Your task to perform on an android device: Search for "usb-a to usb-b" on target.com, select the first entry, add it to the cart, then select checkout. Image 0: 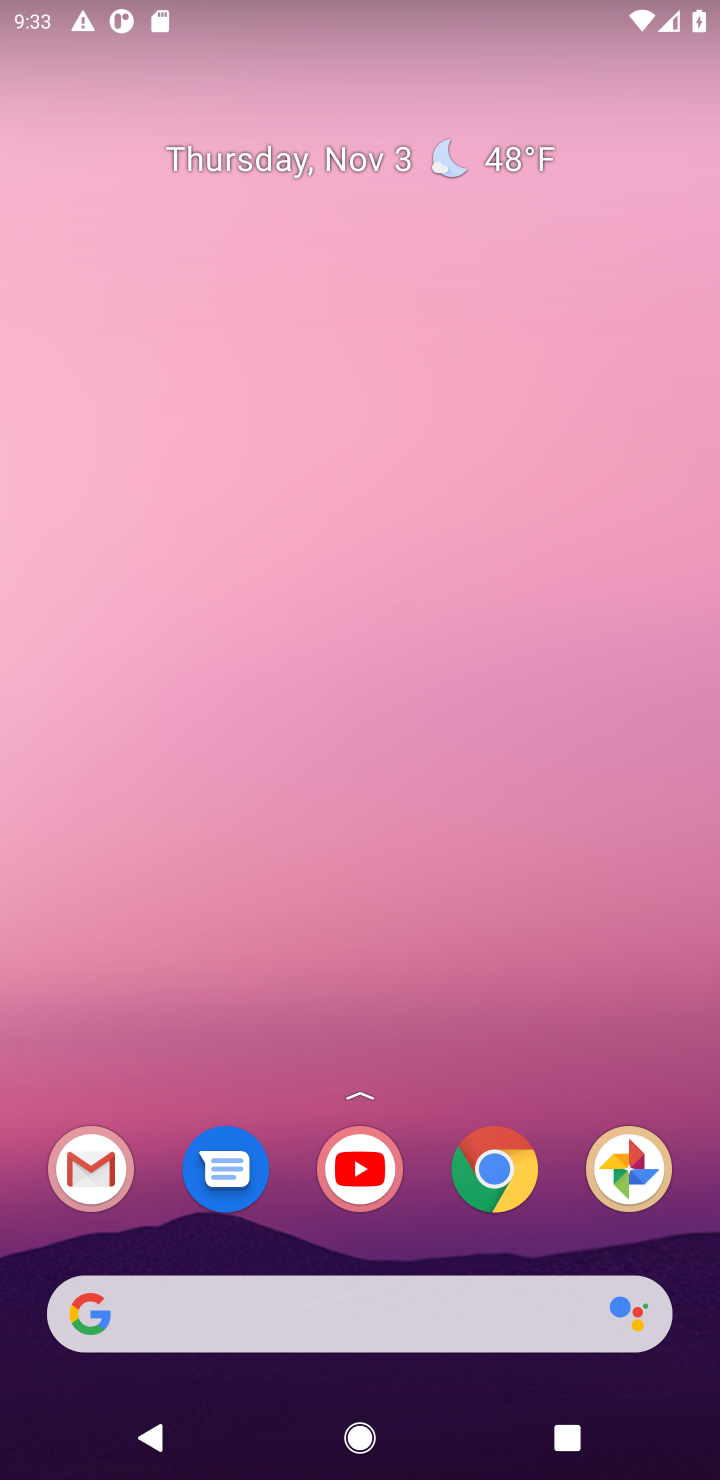
Step 0: drag from (461, 1257) to (517, 269)
Your task to perform on an android device: Search for "usb-a to usb-b" on target.com, select the first entry, add it to the cart, then select checkout. Image 1: 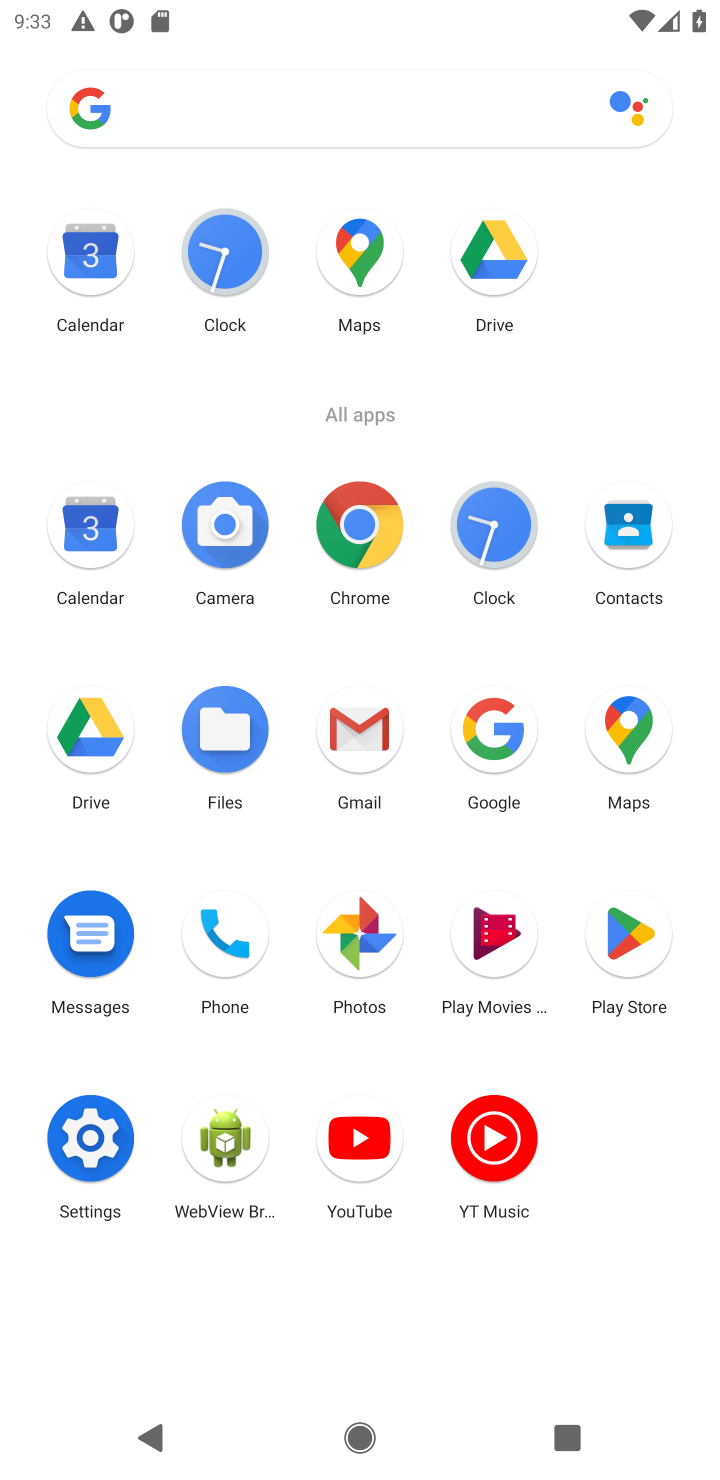
Step 1: click (359, 536)
Your task to perform on an android device: Search for "usb-a to usb-b" on target.com, select the first entry, add it to the cart, then select checkout. Image 2: 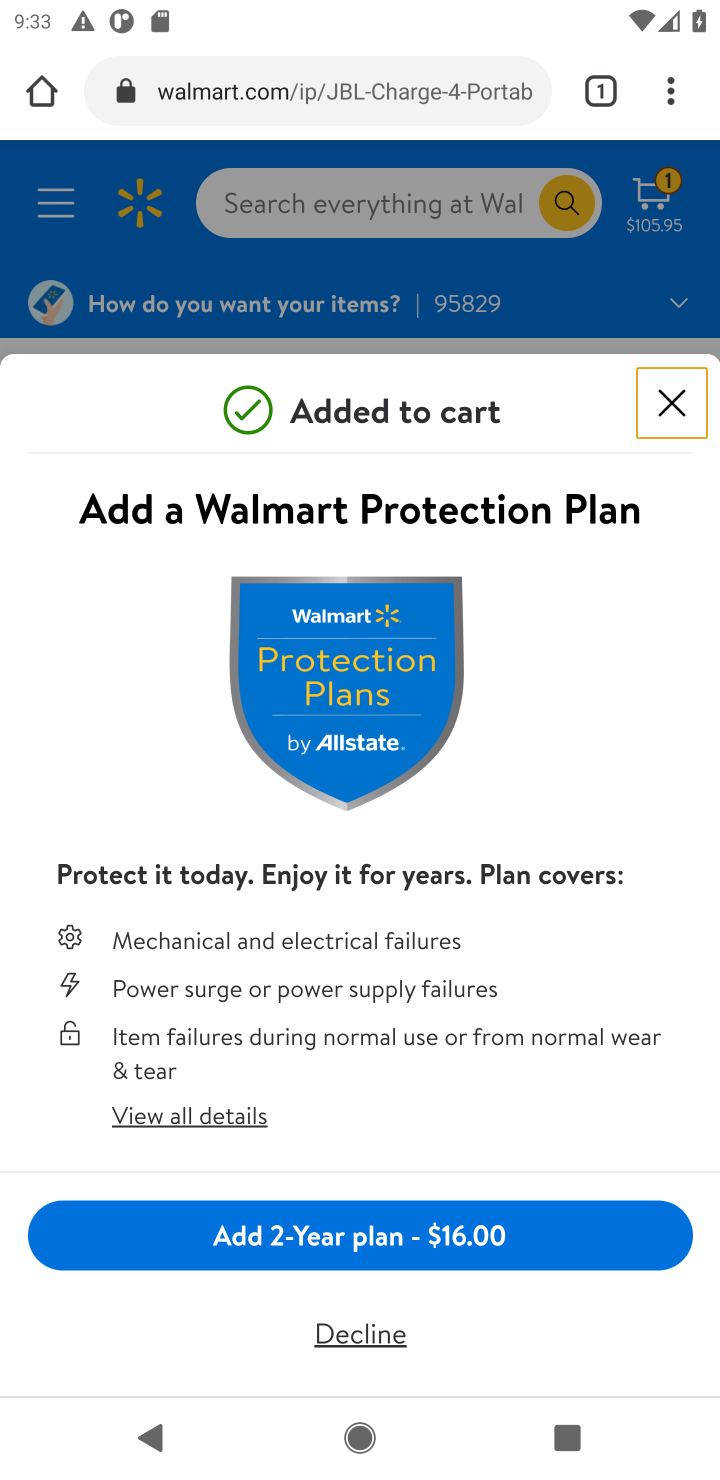
Step 2: click (400, 65)
Your task to perform on an android device: Search for "usb-a to usb-b" on target.com, select the first entry, add it to the cart, then select checkout. Image 3: 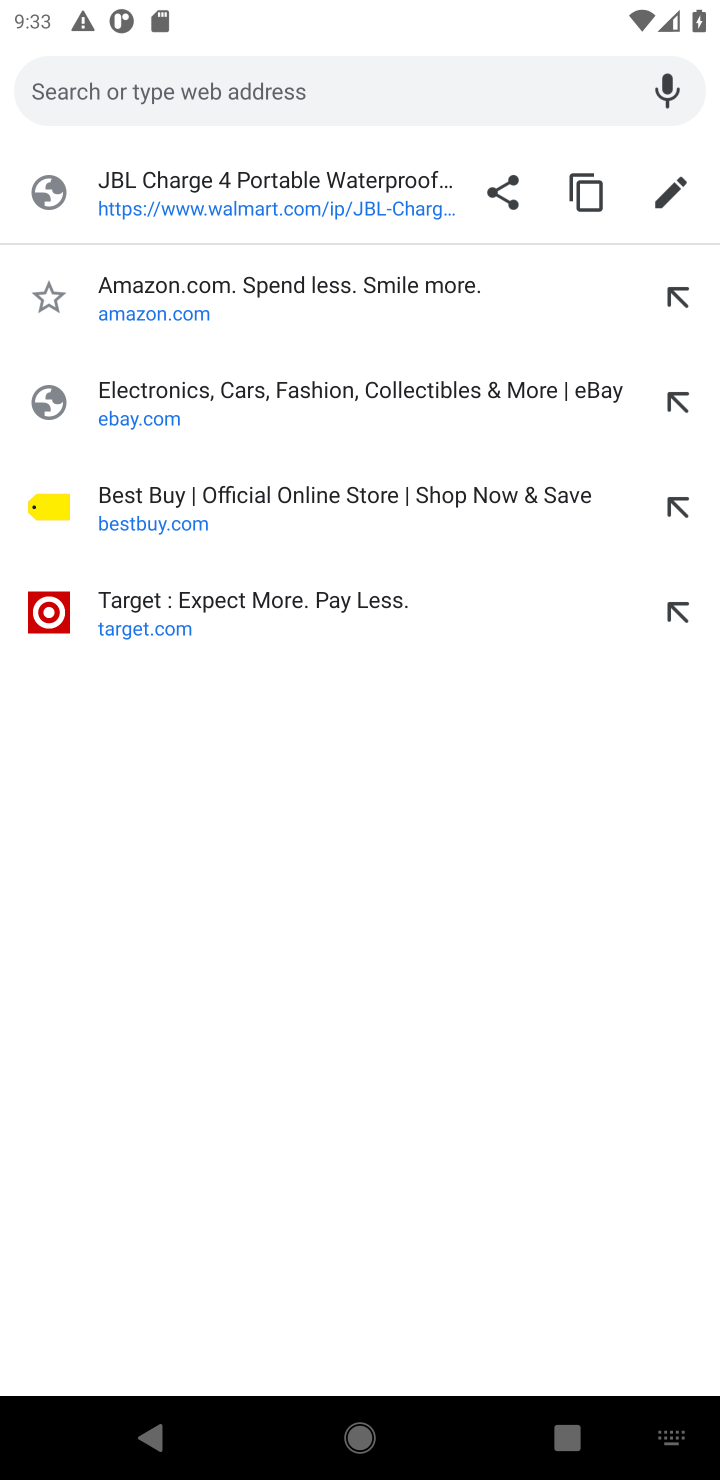
Step 3: type "target.com"
Your task to perform on an android device: Search for "usb-a to usb-b" on target.com, select the first entry, add it to the cart, then select checkout. Image 4: 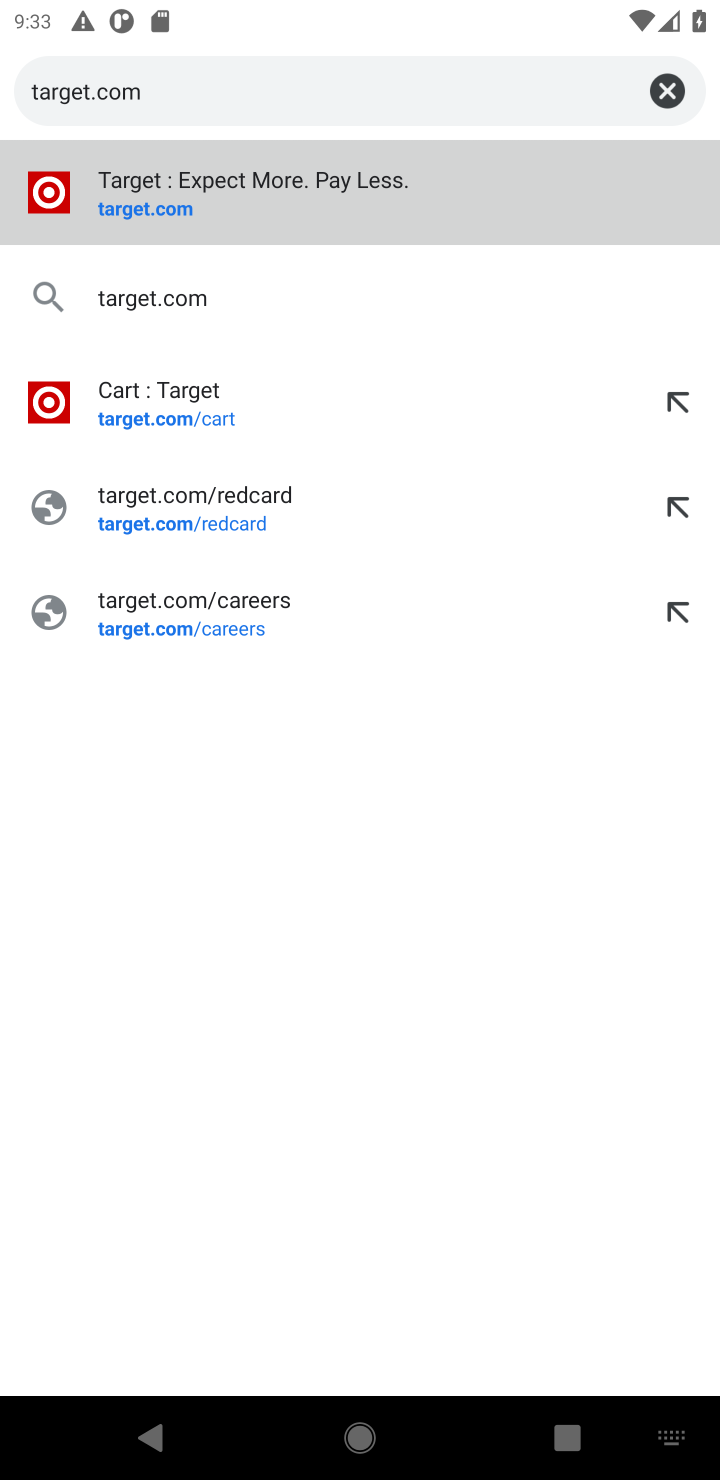
Step 4: press enter
Your task to perform on an android device: Search for "usb-a to usb-b" on target.com, select the first entry, add it to the cart, then select checkout. Image 5: 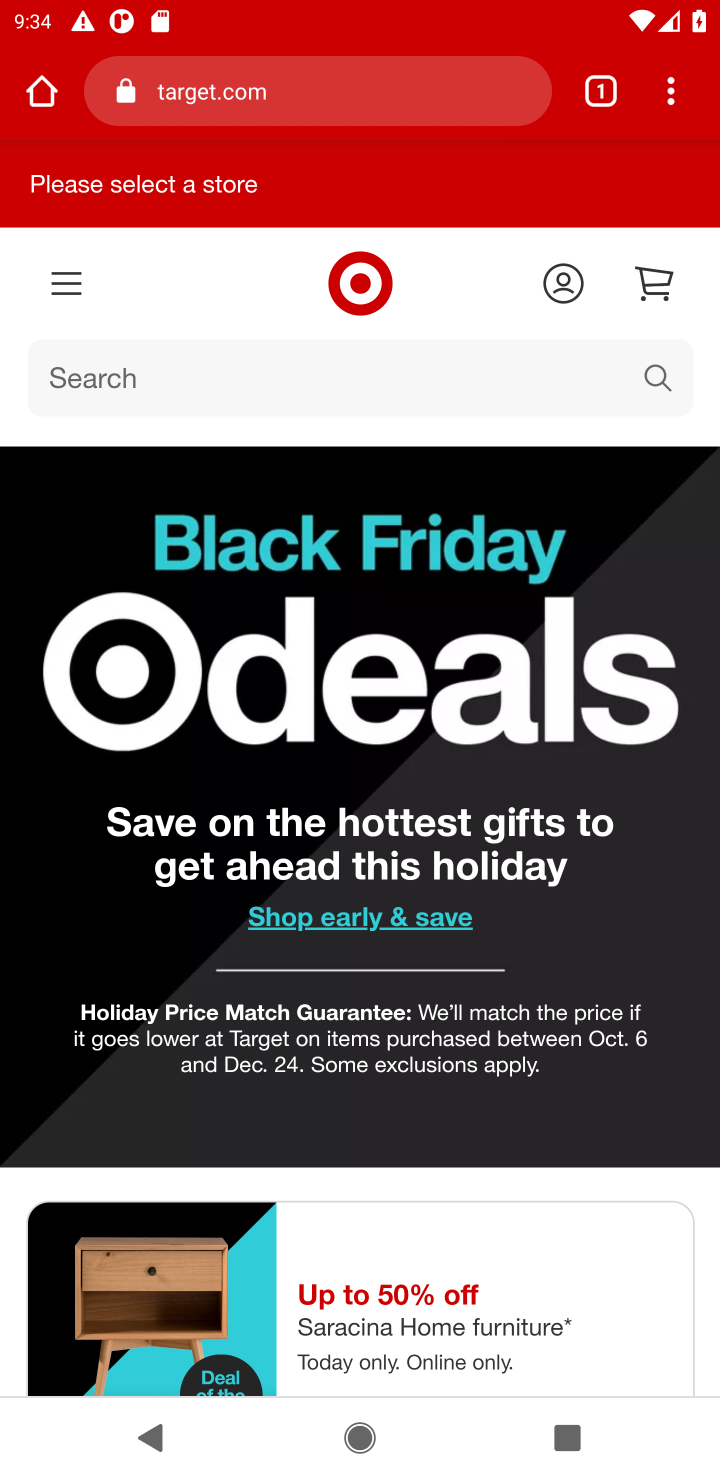
Step 5: drag from (475, 897) to (359, 1154)
Your task to perform on an android device: Search for "usb-a to usb-b" on target.com, select the first entry, add it to the cart, then select checkout. Image 6: 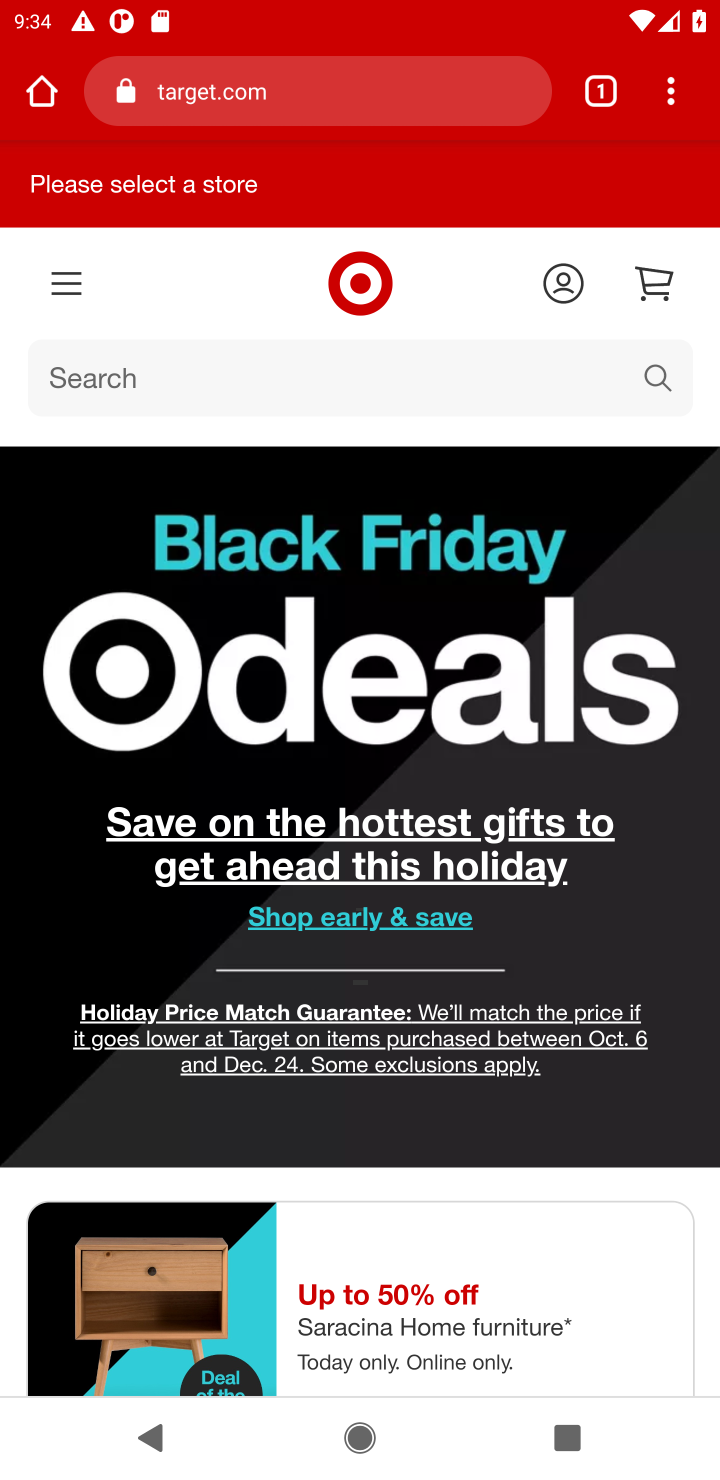
Step 6: click (346, 302)
Your task to perform on an android device: Search for "usb-a to usb-b" on target.com, select the first entry, add it to the cart, then select checkout. Image 7: 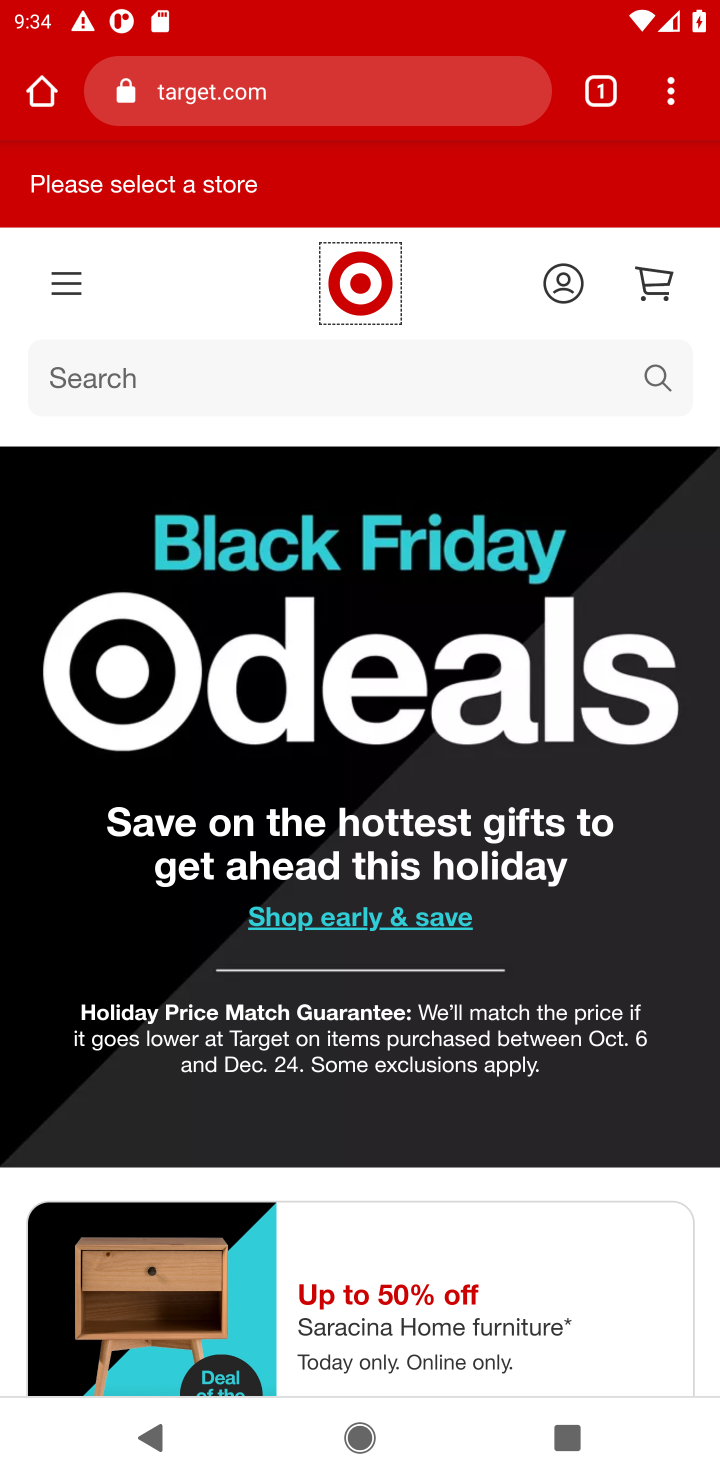
Step 7: click (427, 377)
Your task to perform on an android device: Search for "usb-a to usb-b" on target.com, select the first entry, add it to the cart, then select checkout. Image 8: 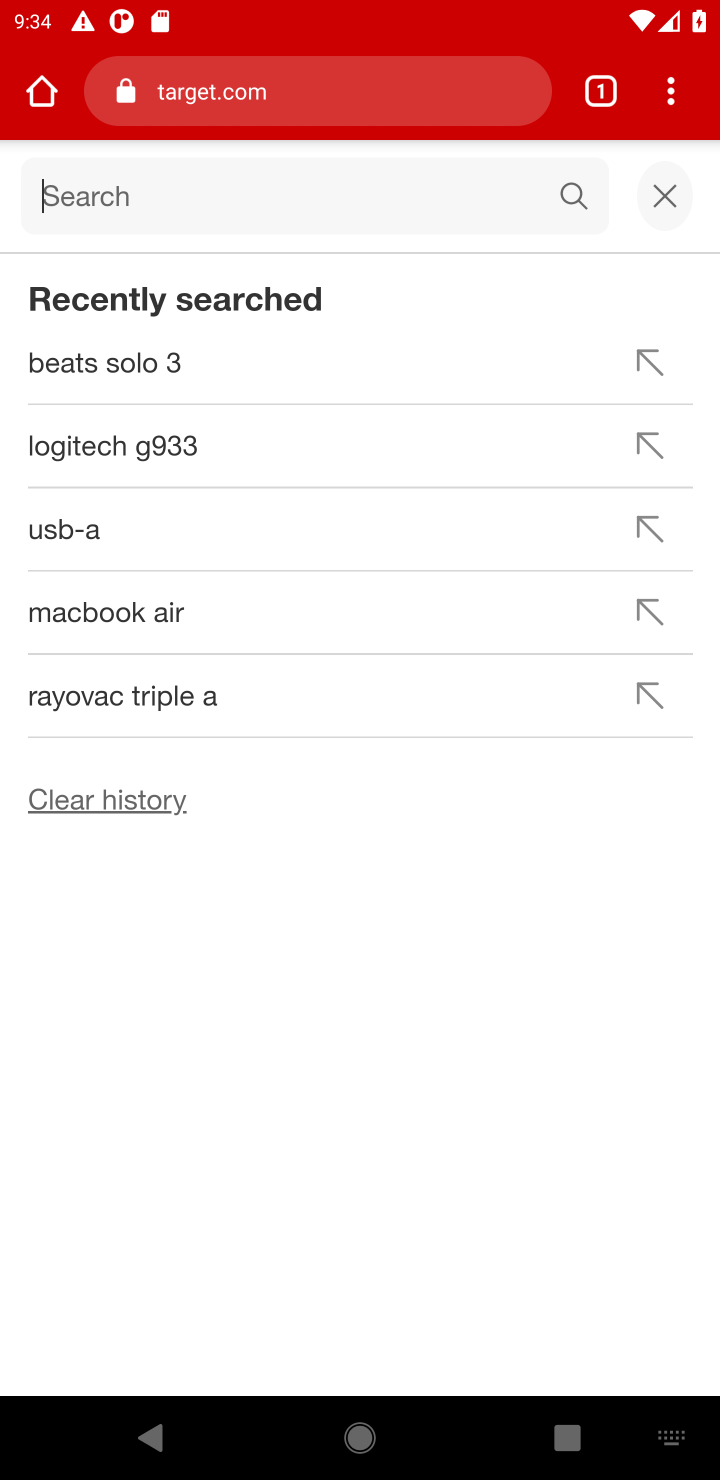
Step 8: type "usb-a to usb-b"
Your task to perform on an android device: Search for "usb-a to usb-b" on target.com, select the first entry, add it to the cart, then select checkout. Image 9: 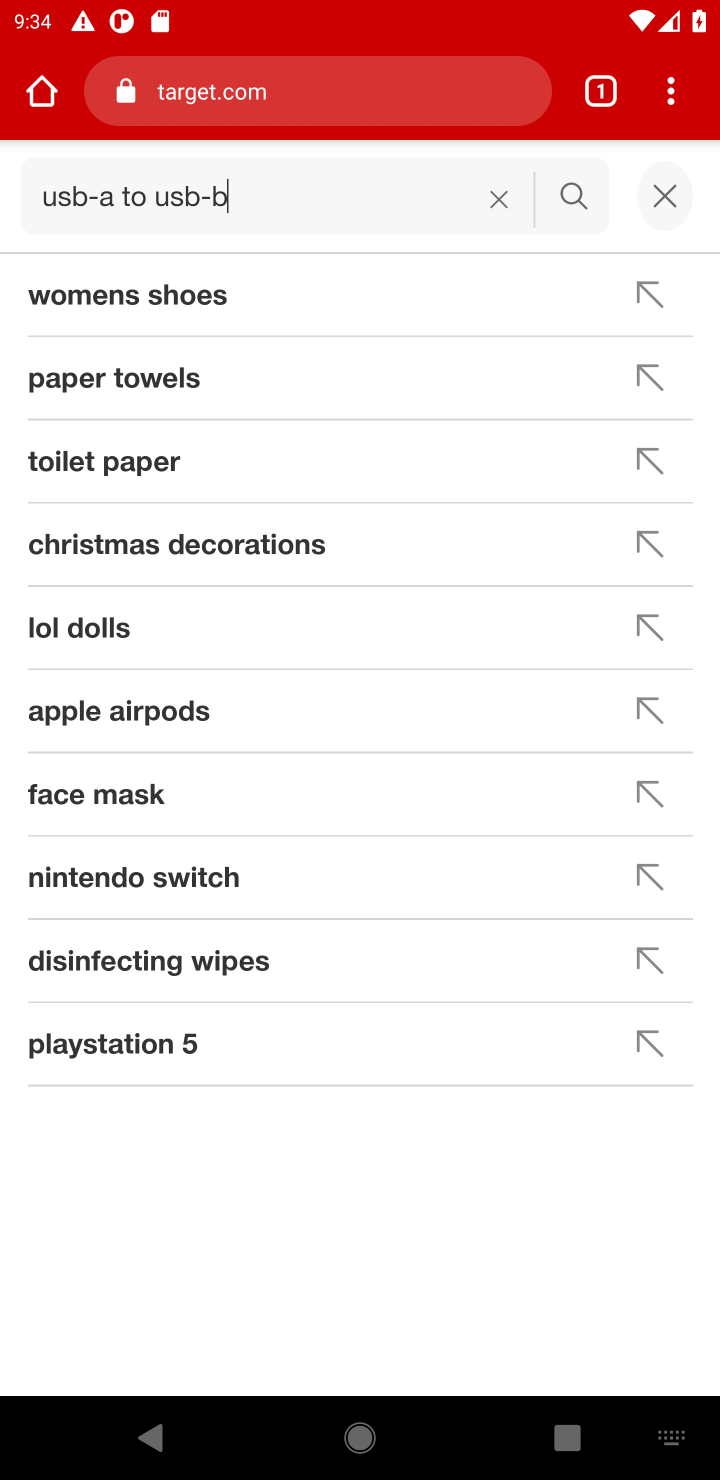
Step 9: press enter
Your task to perform on an android device: Search for "usb-a to usb-b" on target.com, select the first entry, add it to the cart, then select checkout. Image 10: 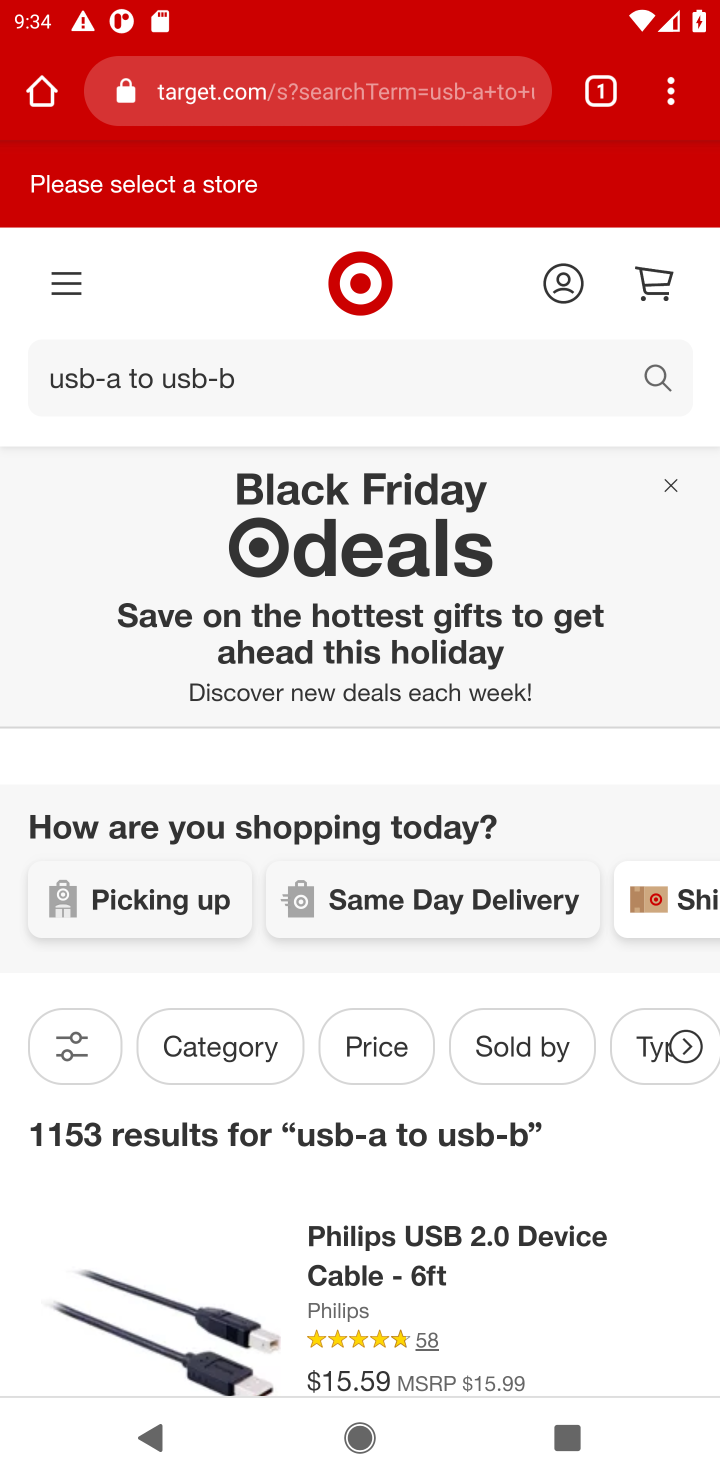
Step 10: drag from (529, 1310) to (572, 402)
Your task to perform on an android device: Search for "usb-a to usb-b" on target.com, select the first entry, add it to the cart, then select checkout. Image 11: 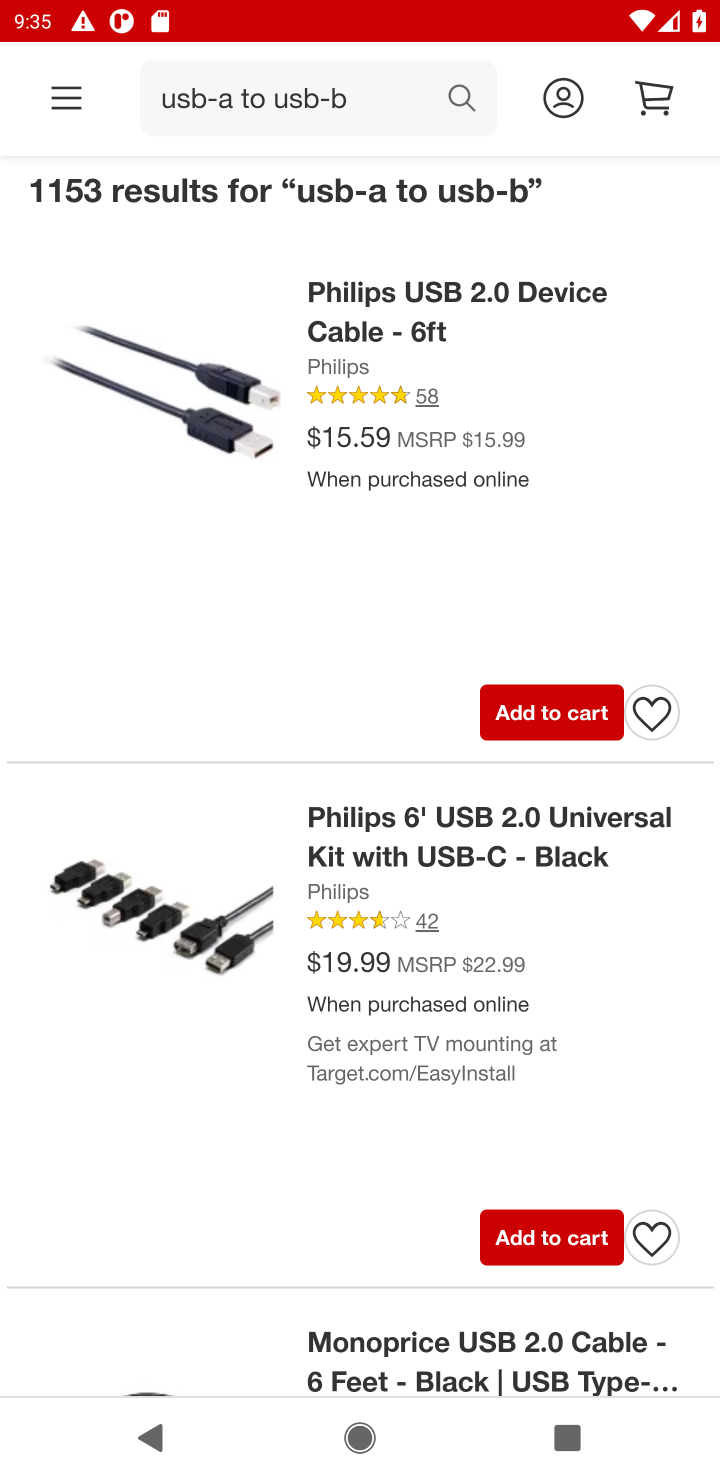
Step 11: drag from (404, 1097) to (435, 552)
Your task to perform on an android device: Search for "usb-a to usb-b" on target.com, select the first entry, add it to the cart, then select checkout. Image 12: 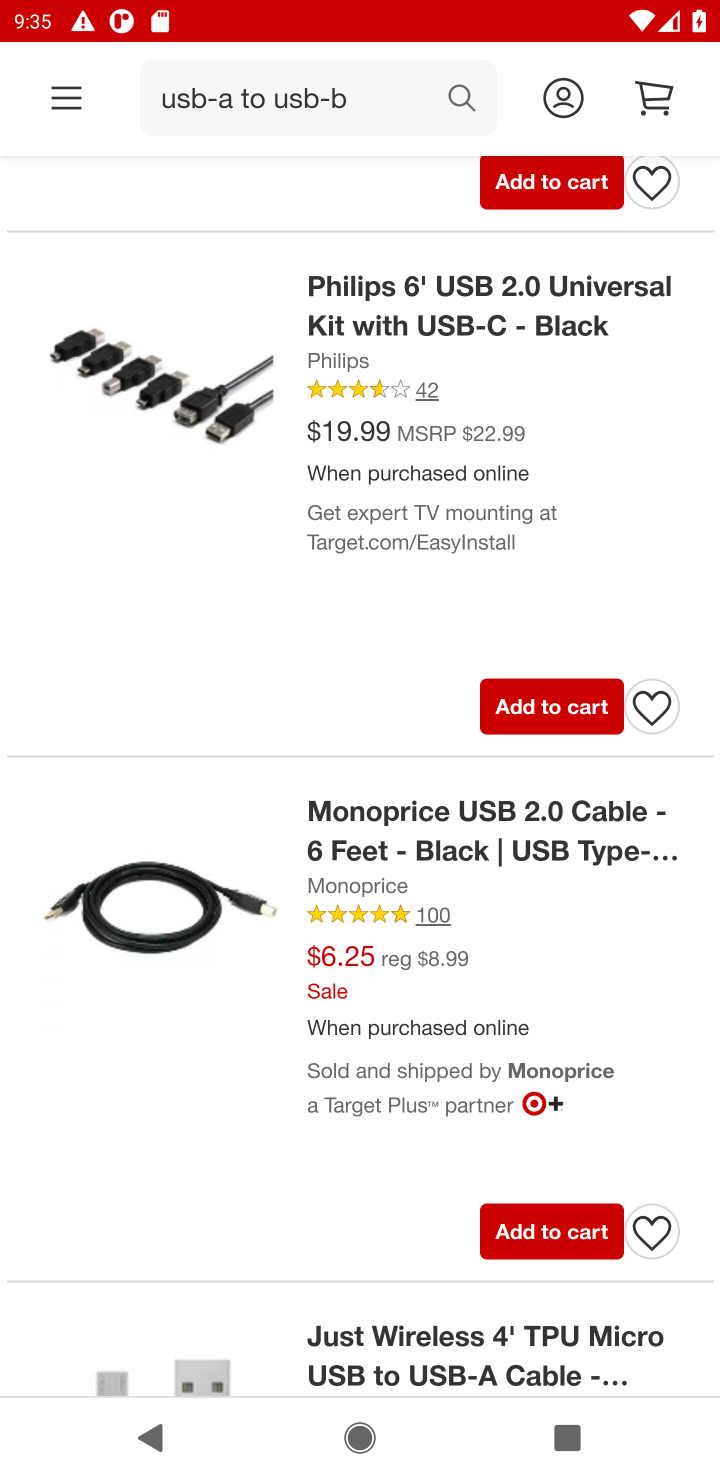
Step 12: drag from (369, 333) to (284, 1479)
Your task to perform on an android device: Search for "usb-a to usb-b" on target.com, select the first entry, add it to the cart, then select checkout. Image 13: 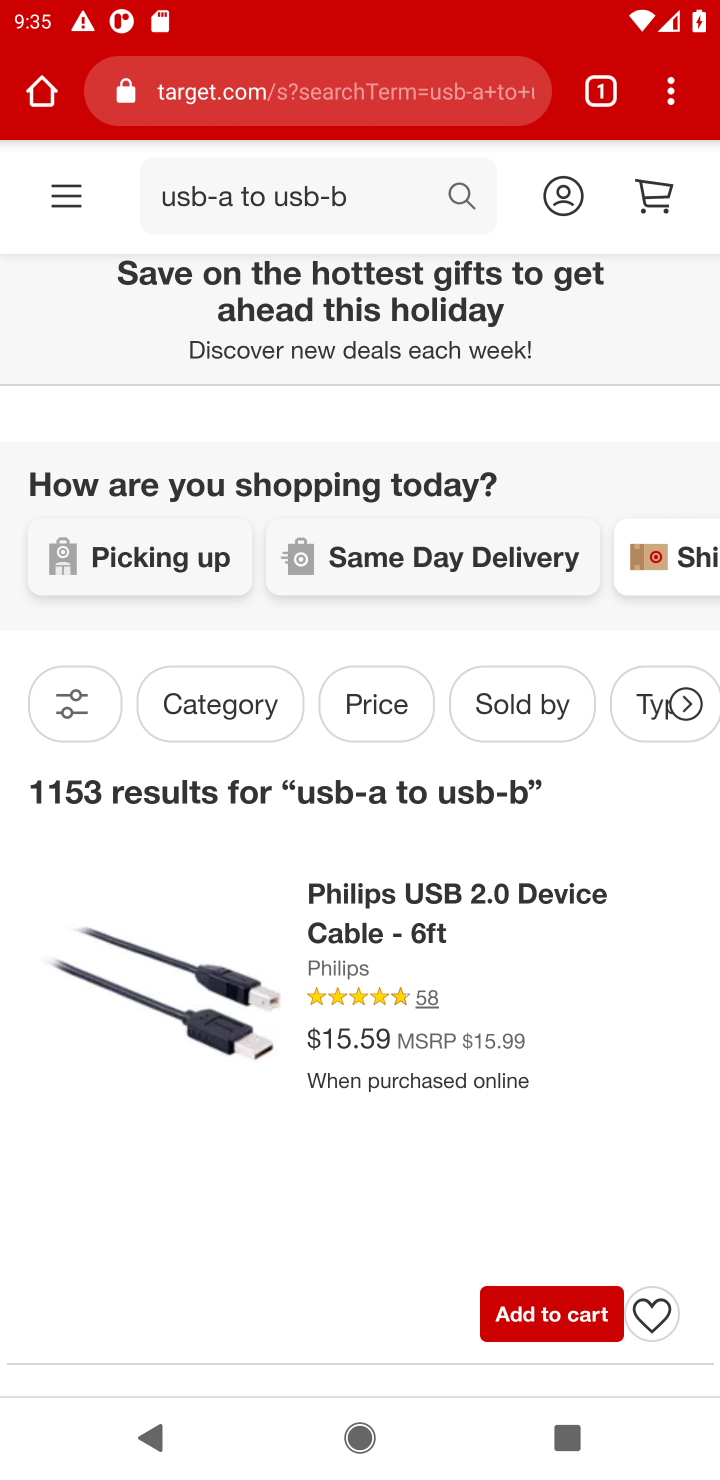
Step 13: click (272, 955)
Your task to perform on an android device: Search for "usb-a to usb-b" on target.com, select the first entry, add it to the cart, then select checkout. Image 14: 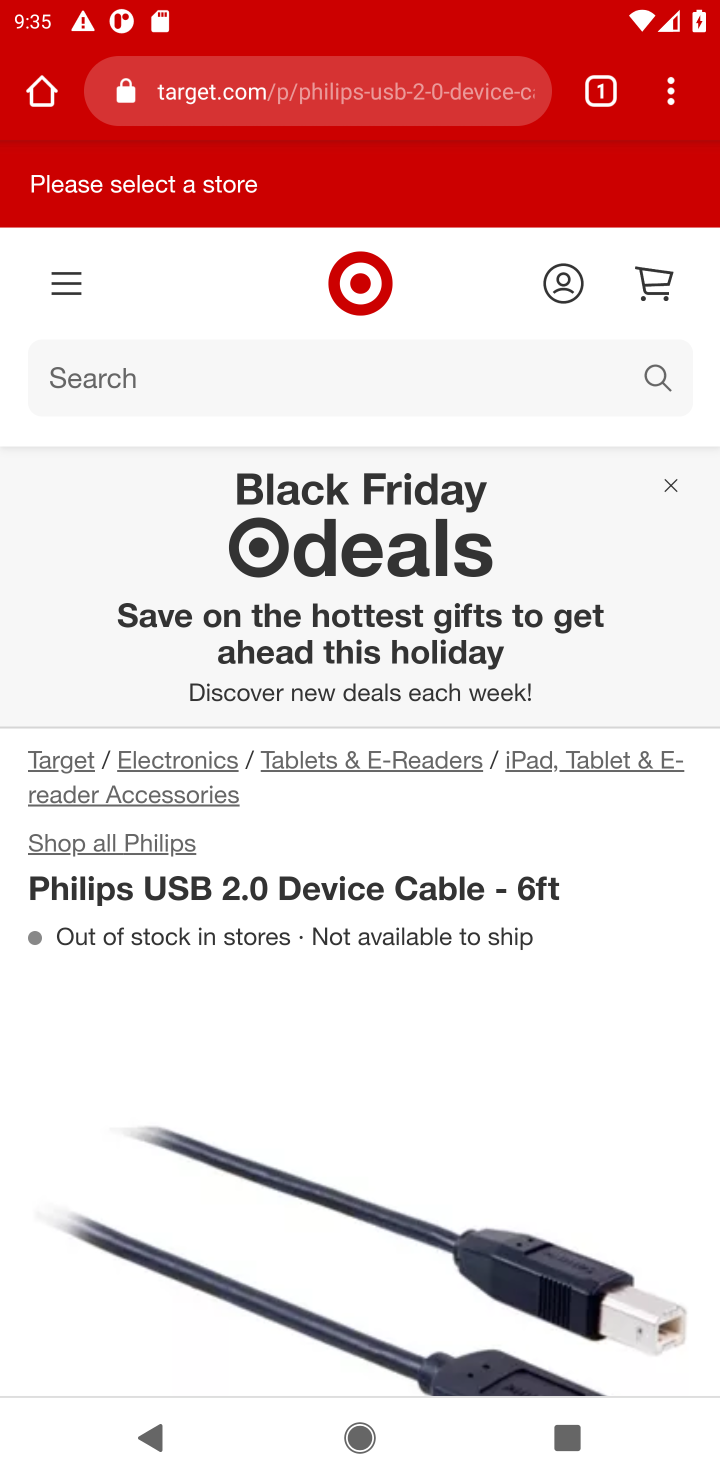
Step 14: drag from (450, 793) to (440, 496)
Your task to perform on an android device: Search for "usb-a to usb-b" on target.com, select the first entry, add it to the cart, then select checkout. Image 15: 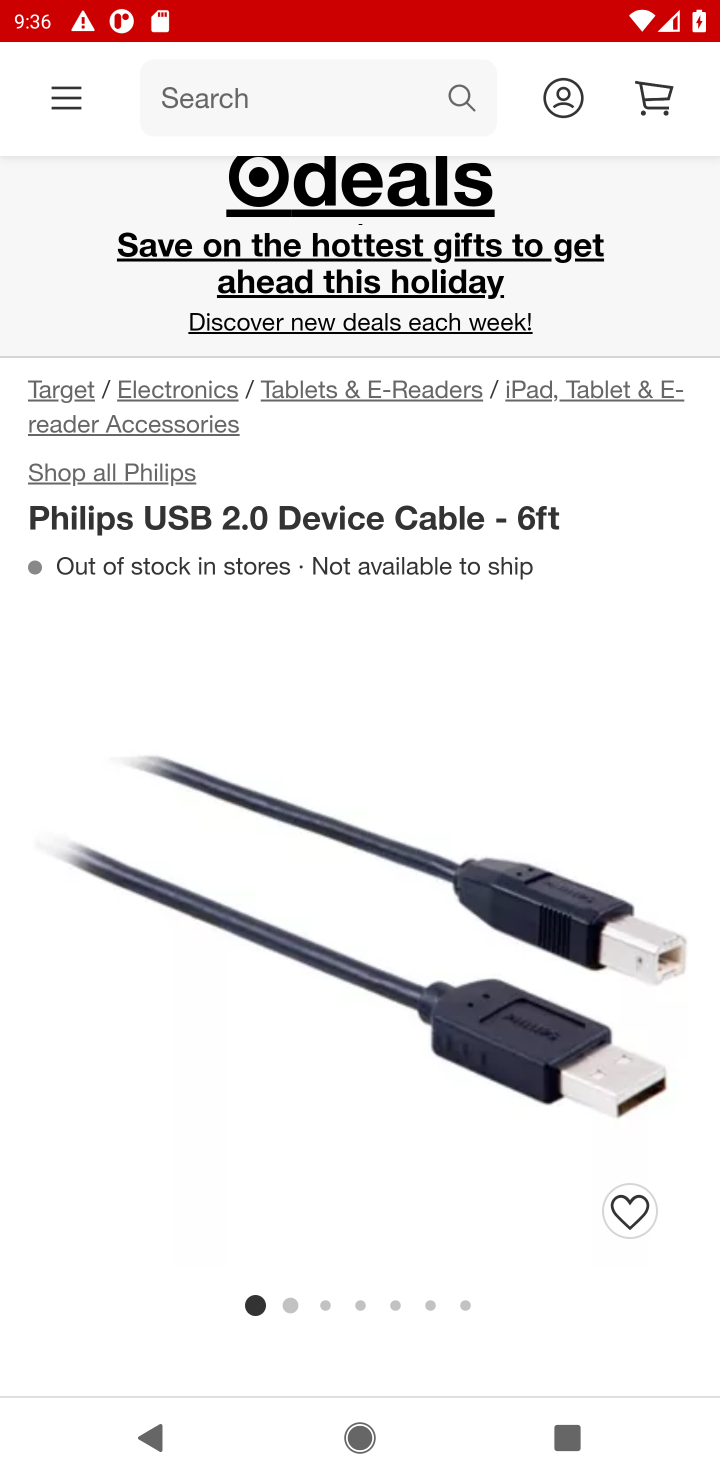
Step 15: drag from (508, 1108) to (518, 111)
Your task to perform on an android device: Search for "usb-a to usb-b" on target.com, select the first entry, add it to the cart, then select checkout. Image 16: 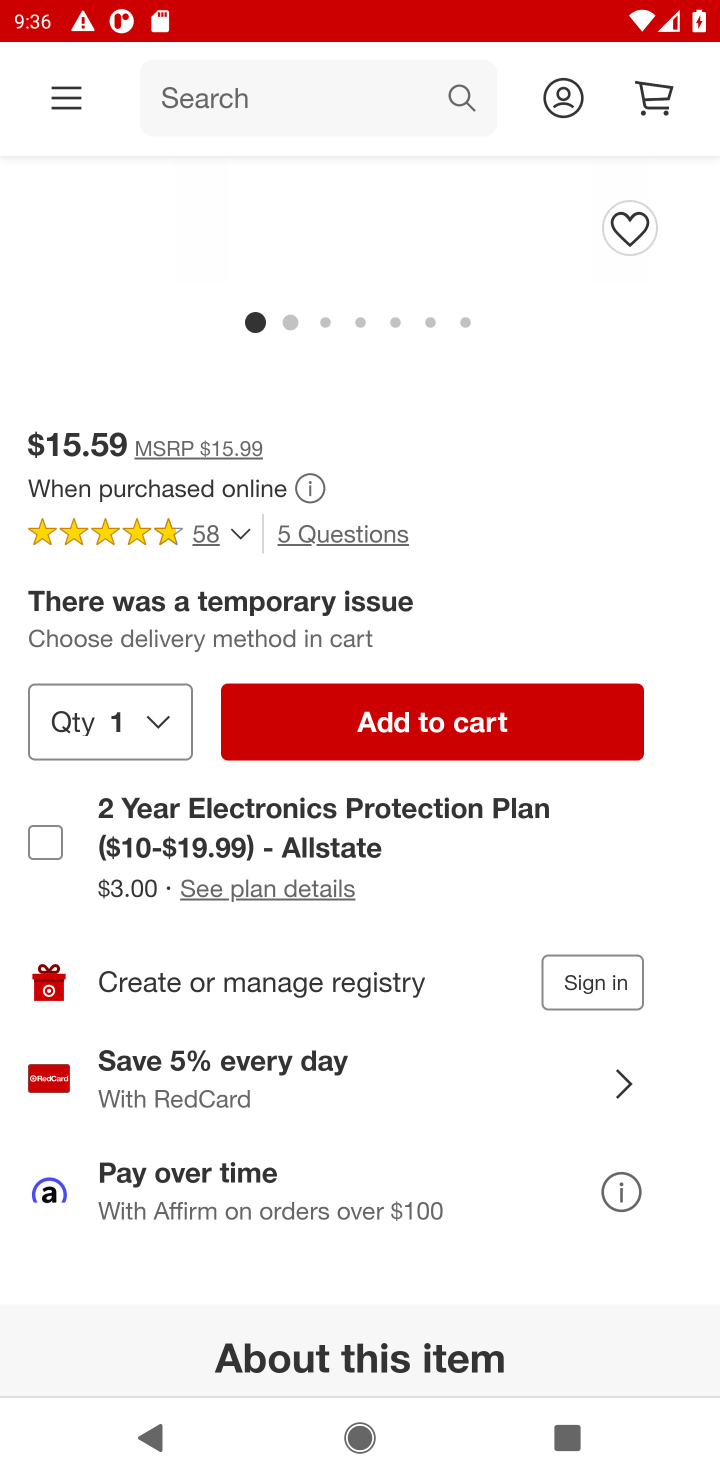
Step 16: click (473, 720)
Your task to perform on an android device: Search for "usb-a to usb-b" on target.com, select the first entry, add it to the cart, then select checkout. Image 17: 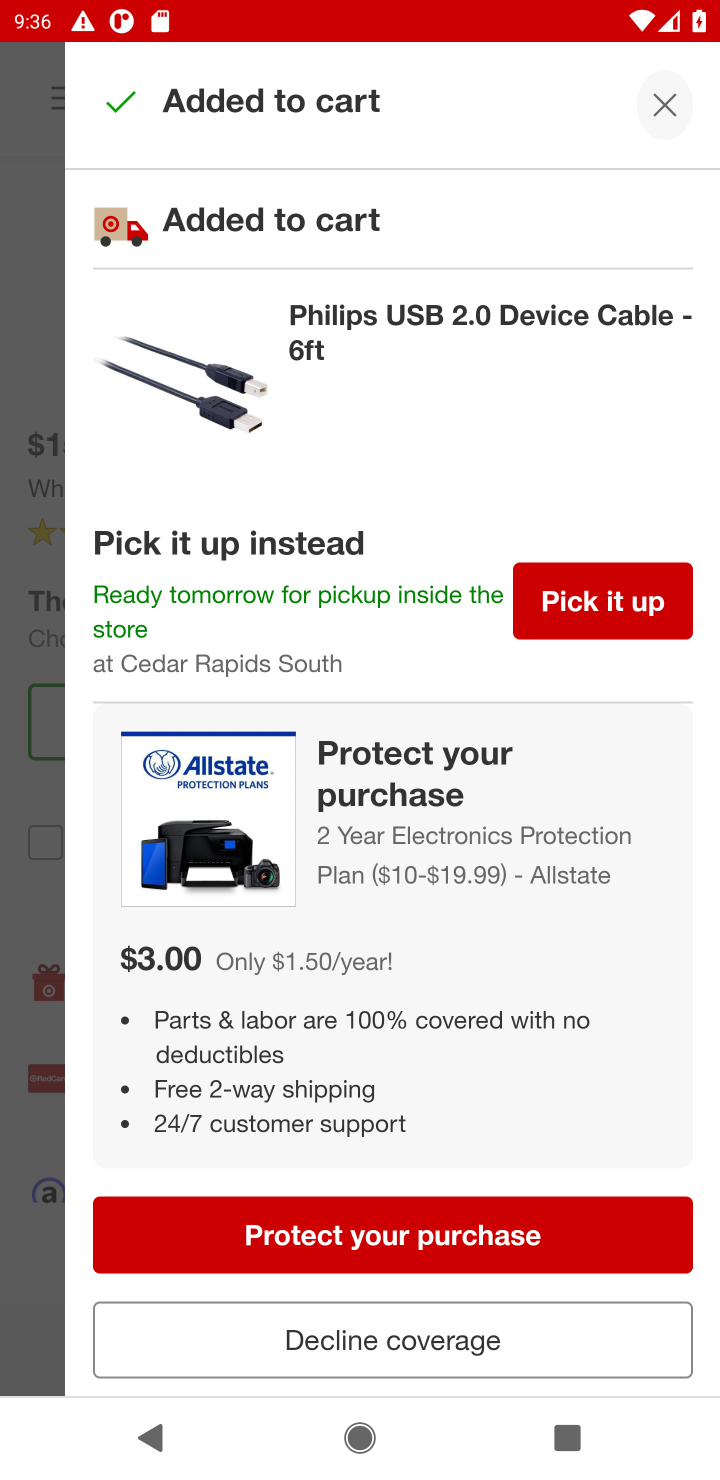
Step 17: click (644, 100)
Your task to perform on an android device: Search for "usb-a to usb-b" on target.com, select the first entry, add it to the cart, then select checkout. Image 18: 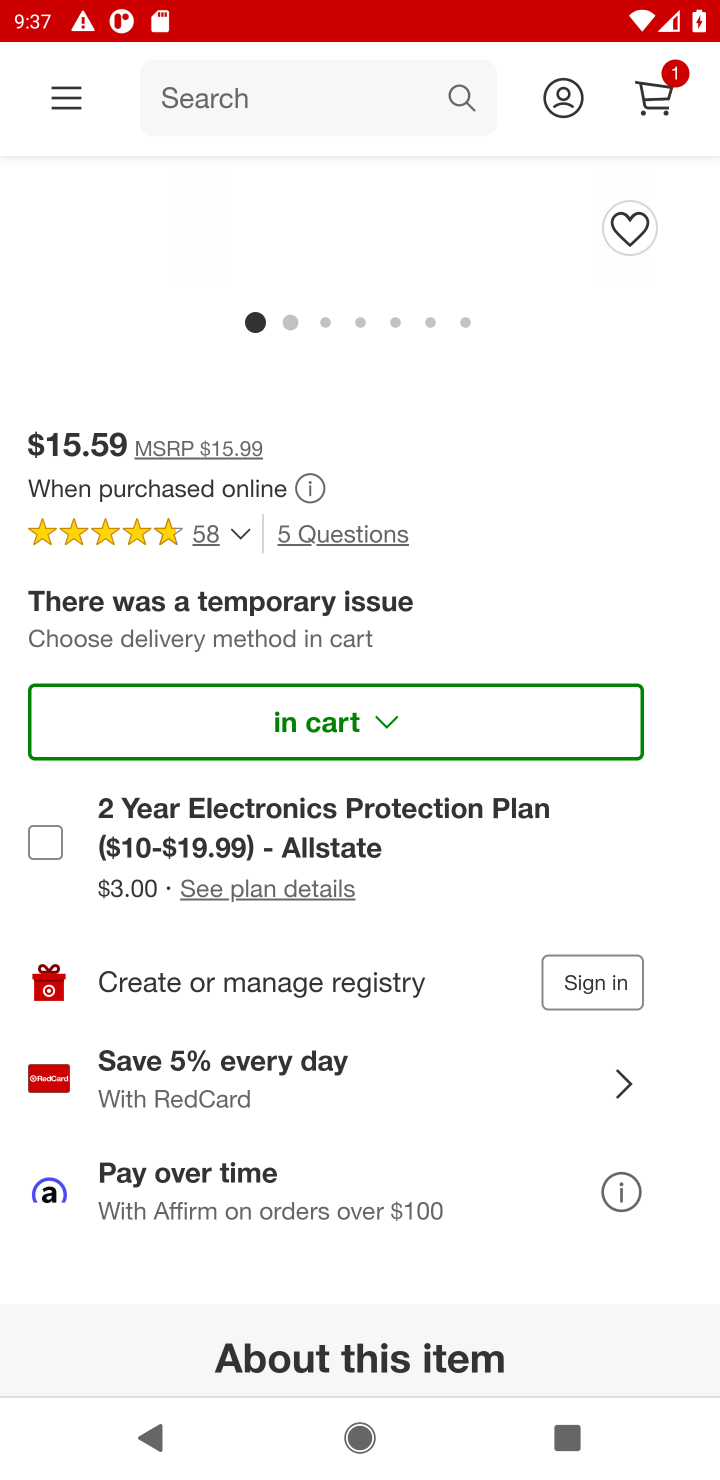
Step 18: click (636, 99)
Your task to perform on an android device: Search for "usb-a to usb-b" on target.com, select the first entry, add it to the cart, then select checkout. Image 19: 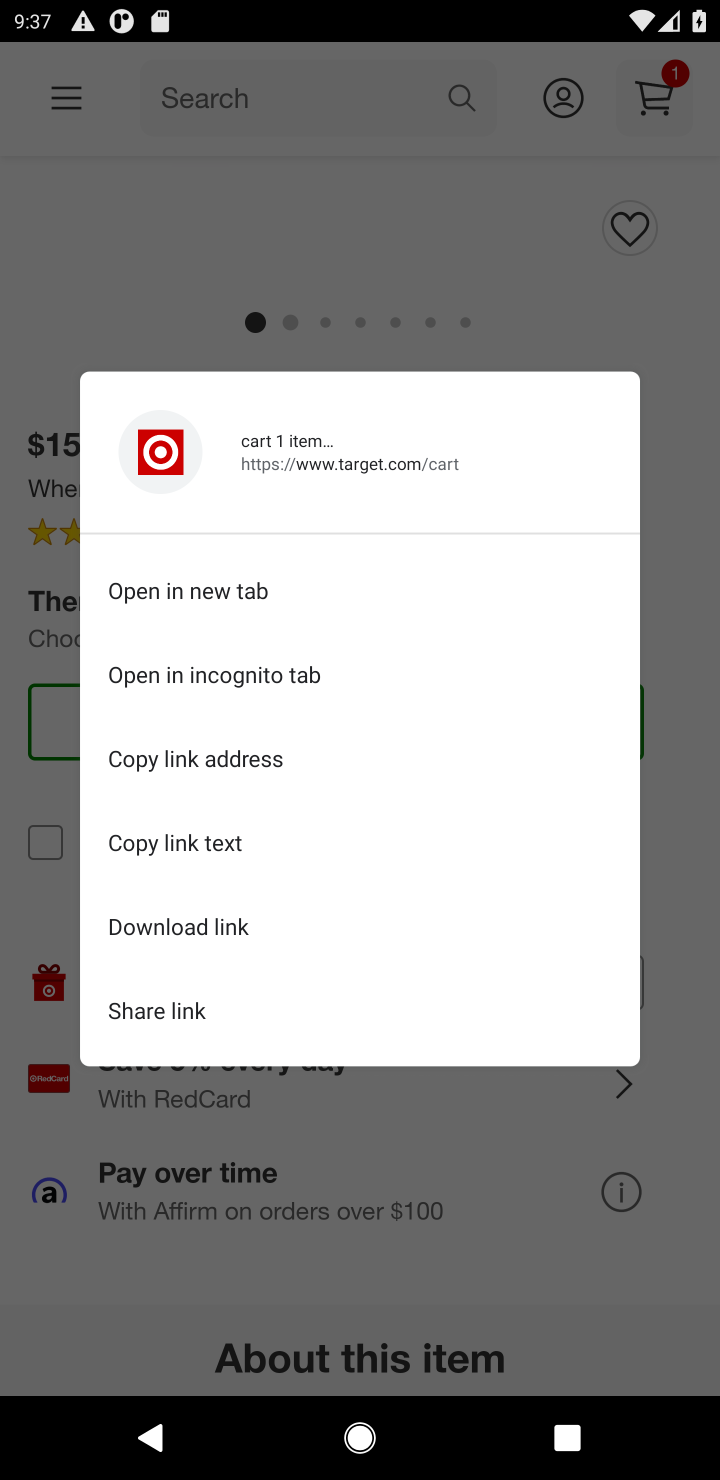
Step 19: click (634, 101)
Your task to perform on an android device: Search for "usb-a to usb-b" on target.com, select the first entry, add it to the cart, then select checkout. Image 20: 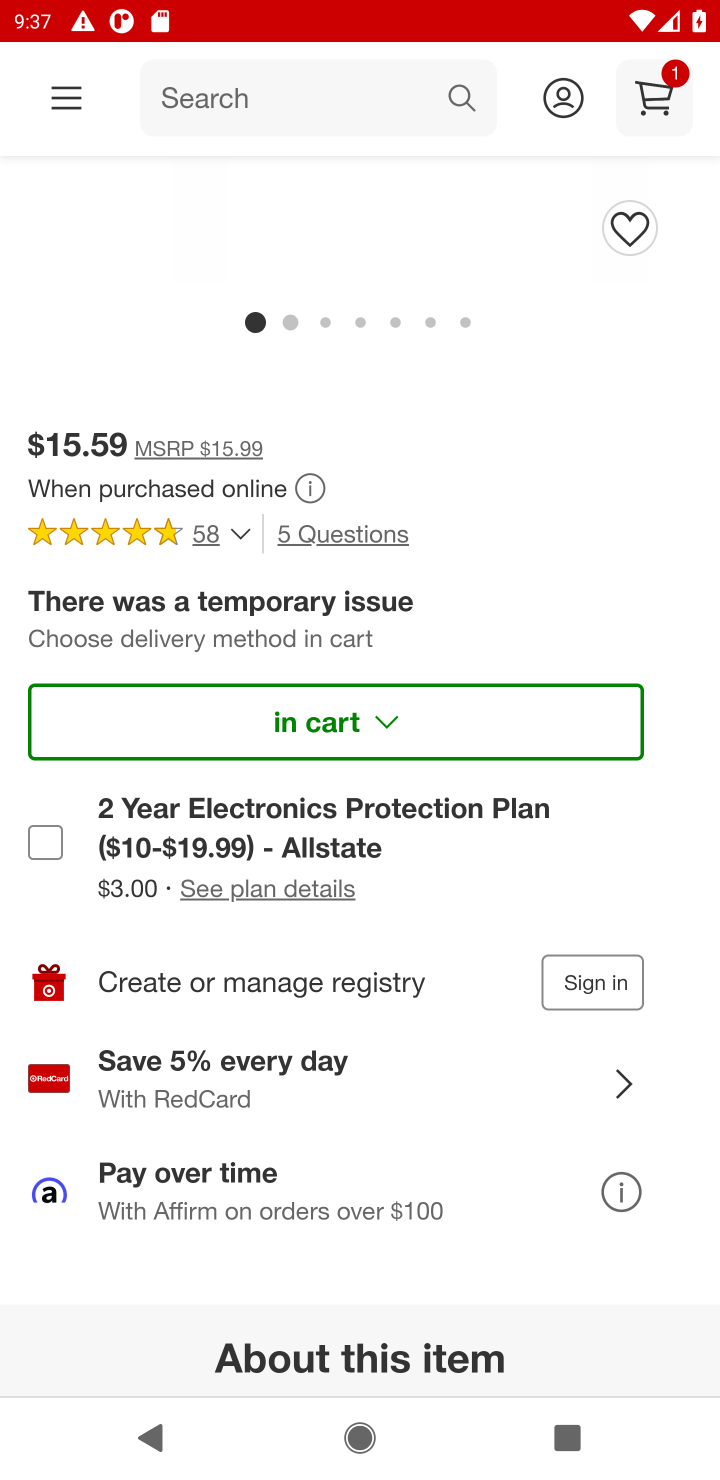
Step 20: click (664, 90)
Your task to perform on an android device: Search for "usb-a to usb-b" on target.com, select the first entry, add it to the cart, then select checkout. Image 21: 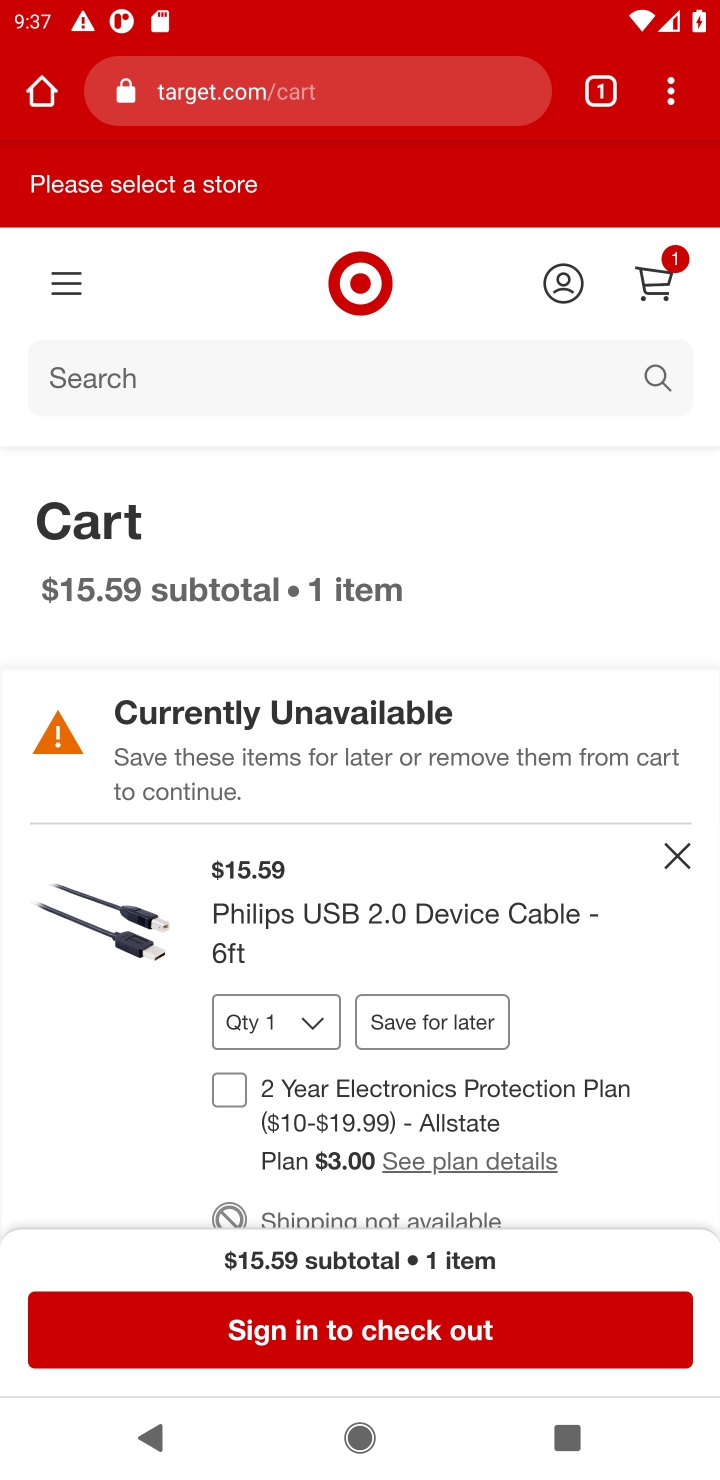
Step 21: click (466, 1317)
Your task to perform on an android device: Search for "usb-a to usb-b" on target.com, select the first entry, add it to the cart, then select checkout. Image 22: 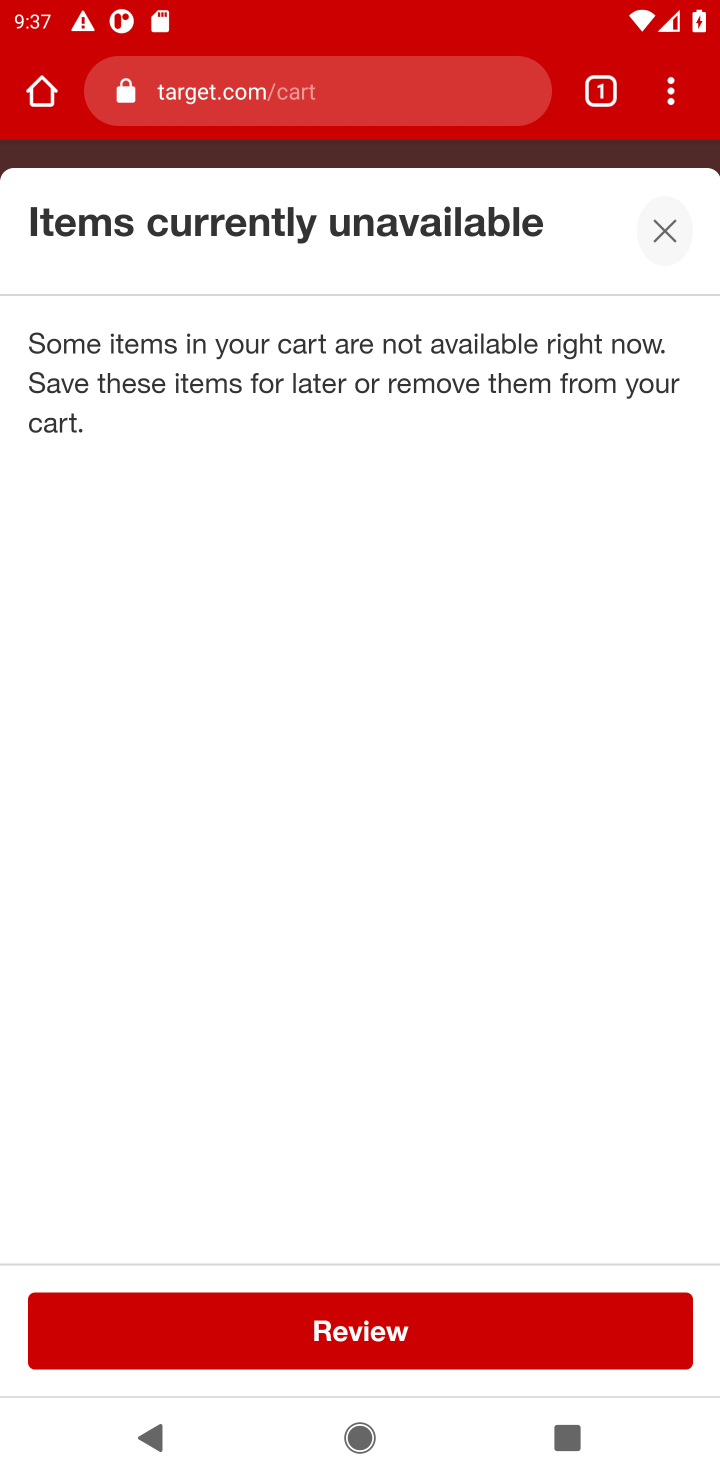
Step 22: task complete